Your task to perform on an android device: Show me popular videos on Youtube Image 0: 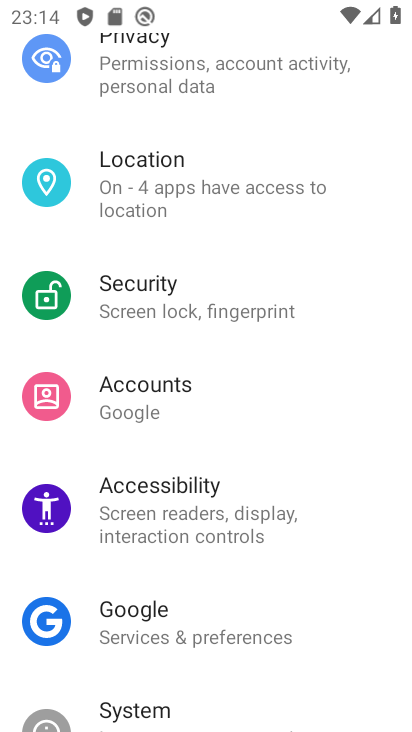
Step 0: press home button
Your task to perform on an android device: Show me popular videos on Youtube Image 1: 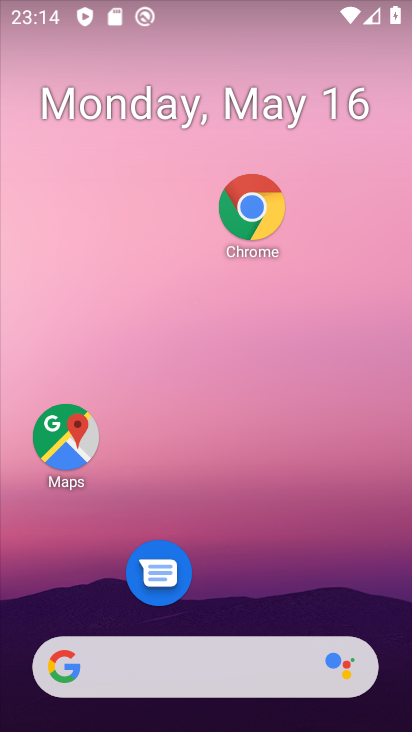
Step 1: drag from (159, 663) to (263, 132)
Your task to perform on an android device: Show me popular videos on Youtube Image 2: 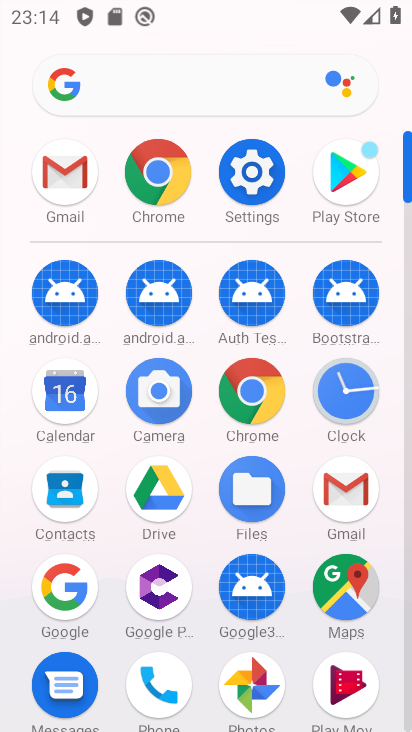
Step 2: drag from (304, 635) to (309, 210)
Your task to perform on an android device: Show me popular videos on Youtube Image 3: 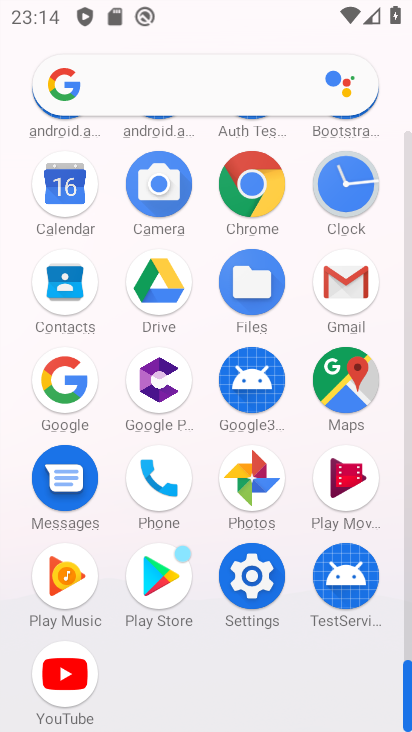
Step 3: click (72, 673)
Your task to perform on an android device: Show me popular videos on Youtube Image 4: 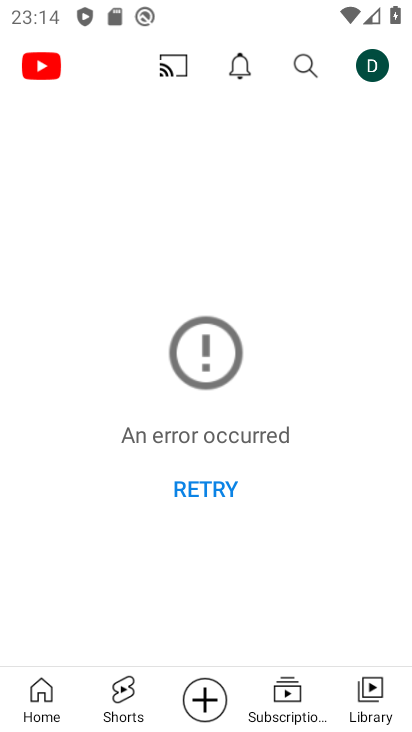
Step 4: click (215, 488)
Your task to perform on an android device: Show me popular videos on Youtube Image 5: 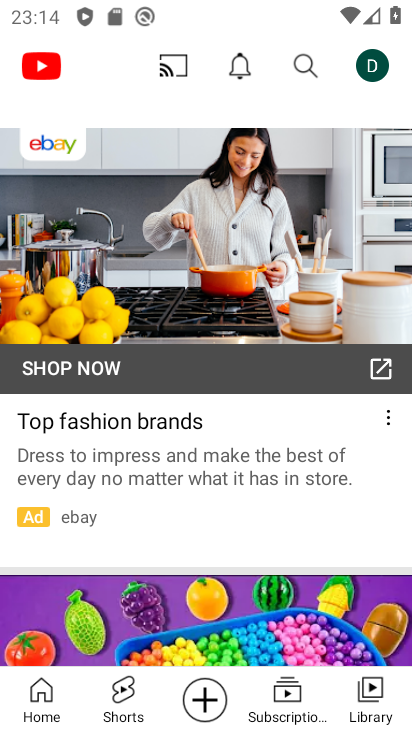
Step 5: task complete